Your task to perform on an android device: see sites visited before in the chrome app Image 0: 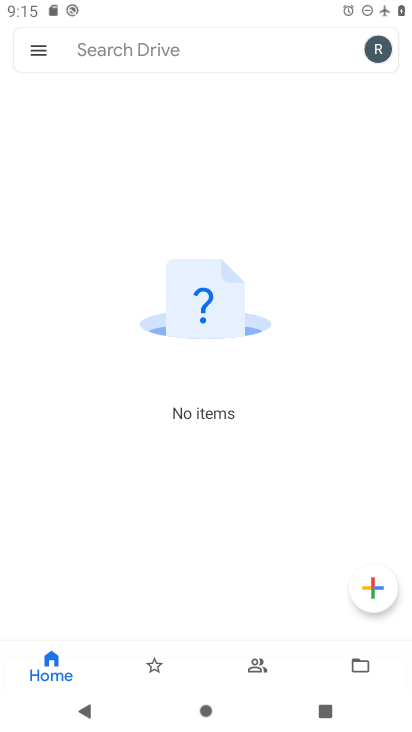
Step 0: press home button
Your task to perform on an android device: see sites visited before in the chrome app Image 1: 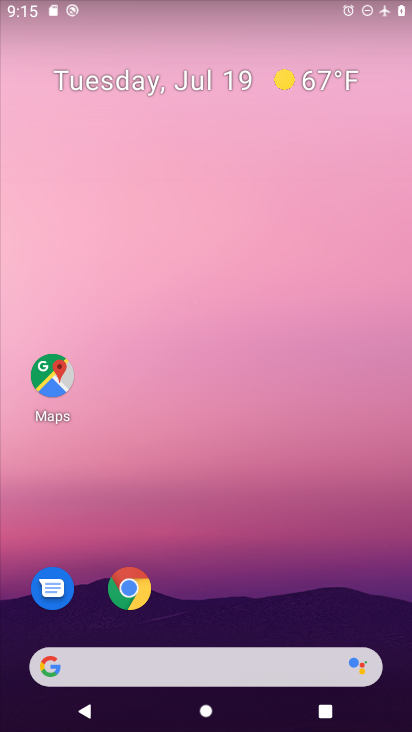
Step 1: drag from (318, 602) to (354, 111)
Your task to perform on an android device: see sites visited before in the chrome app Image 2: 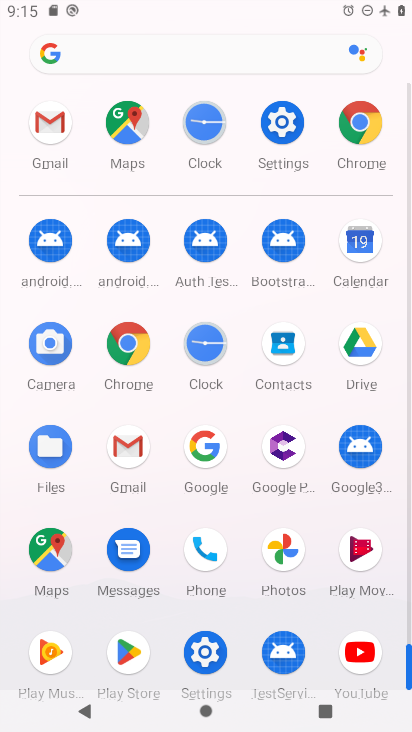
Step 2: click (127, 346)
Your task to perform on an android device: see sites visited before in the chrome app Image 3: 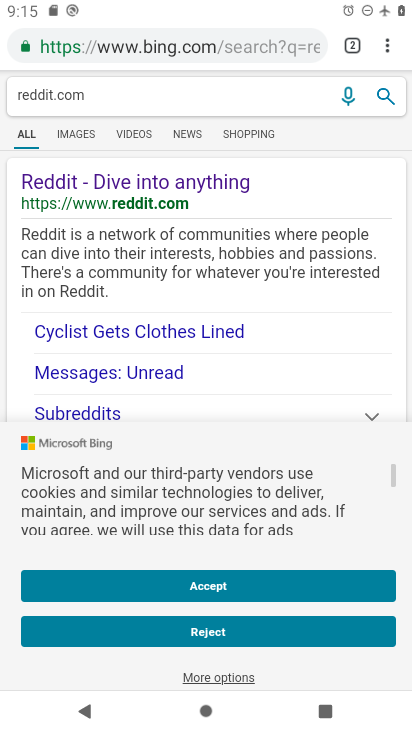
Step 3: click (388, 45)
Your task to perform on an android device: see sites visited before in the chrome app Image 4: 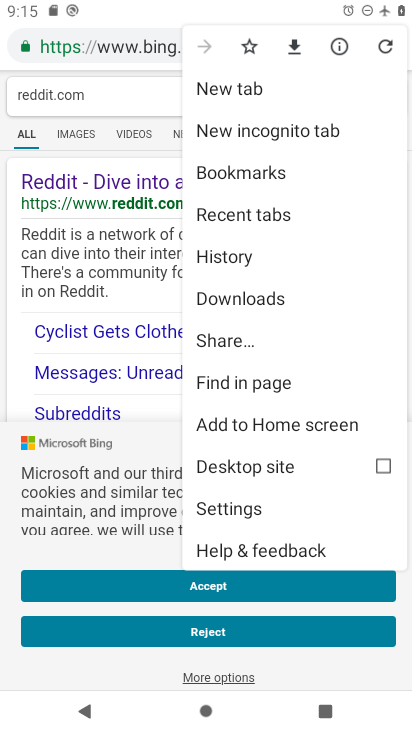
Step 4: click (243, 259)
Your task to perform on an android device: see sites visited before in the chrome app Image 5: 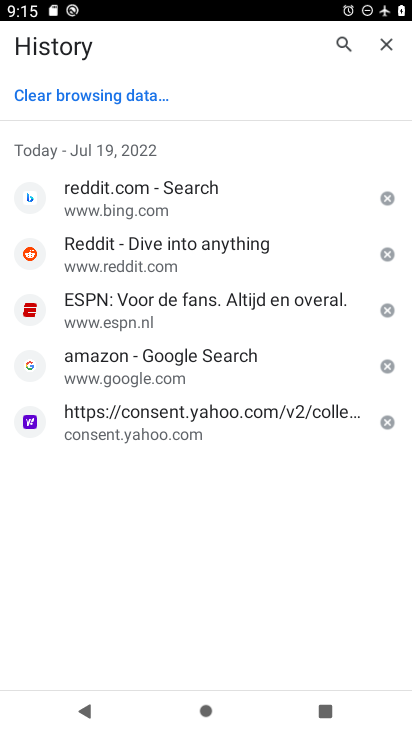
Step 5: task complete